Your task to perform on an android device: Go to calendar. Show me events next week Image 0: 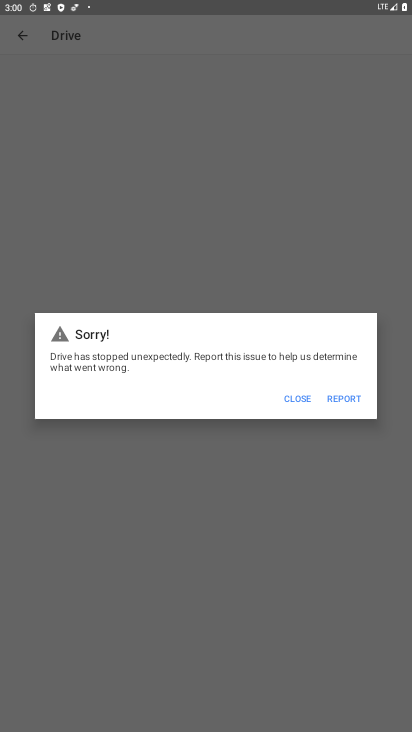
Step 0: press home button
Your task to perform on an android device: Go to calendar. Show me events next week Image 1: 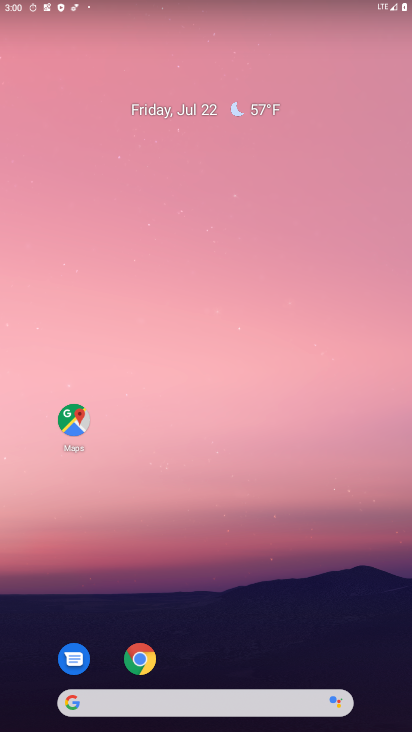
Step 1: drag from (279, 660) to (262, 170)
Your task to perform on an android device: Go to calendar. Show me events next week Image 2: 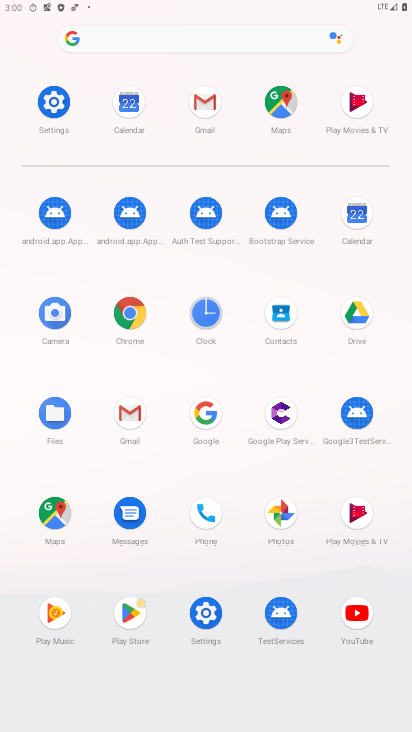
Step 2: click (352, 209)
Your task to perform on an android device: Go to calendar. Show me events next week Image 3: 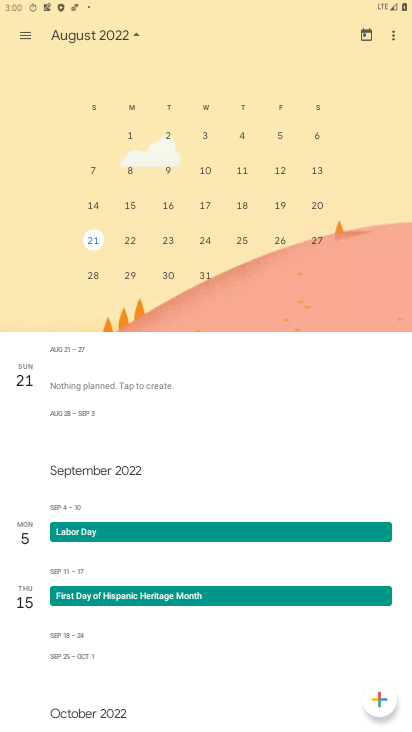
Step 3: drag from (47, 200) to (399, 225)
Your task to perform on an android device: Go to calendar. Show me events next week Image 4: 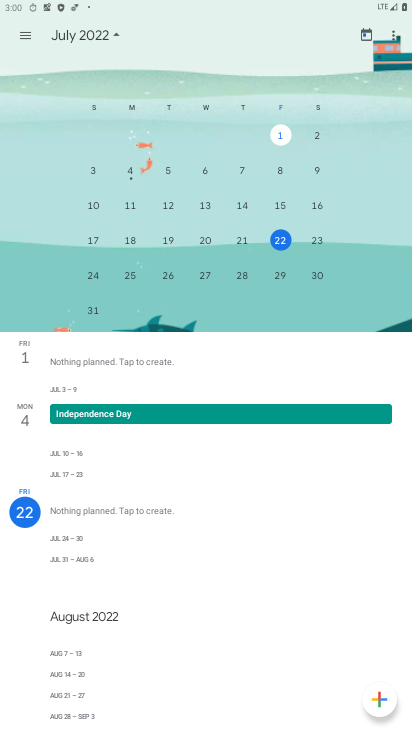
Step 4: click (86, 280)
Your task to perform on an android device: Go to calendar. Show me events next week Image 5: 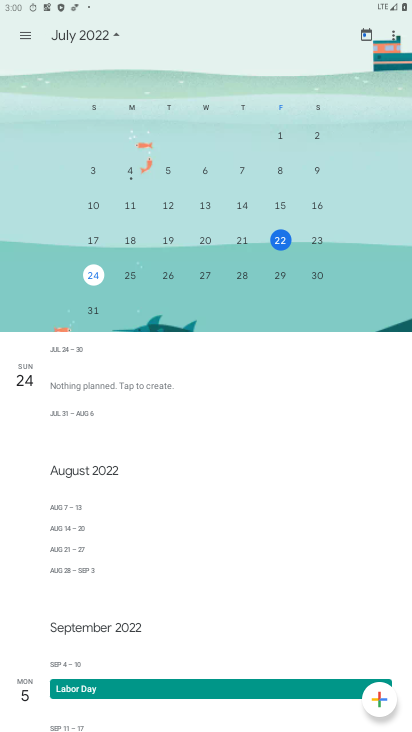
Step 5: click (135, 280)
Your task to perform on an android device: Go to calendar. Show me events next week Image 6: 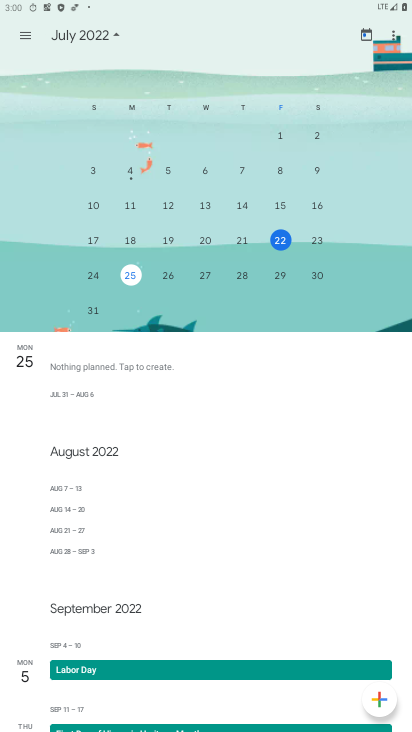
Step 6: click (176, 279)
Your task to perform on an android device: Go to calendar. Show me events next week Image 7: 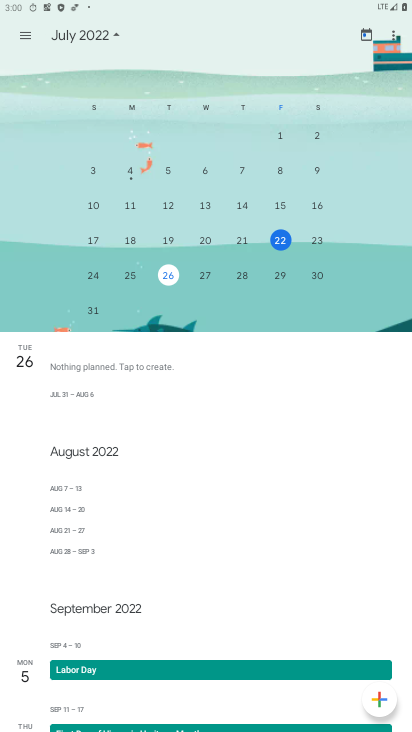
Step 7: click (207, 278)
Your task to perform on an android device: Go to calendar. Show me events next week Image 8: 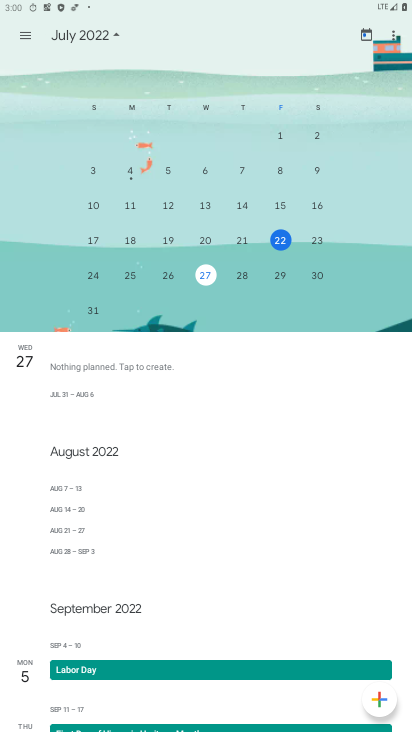
Step 8: click (239, 279)
Your task to perform on an android device: Go to calendar. Show me events next week Image 9: 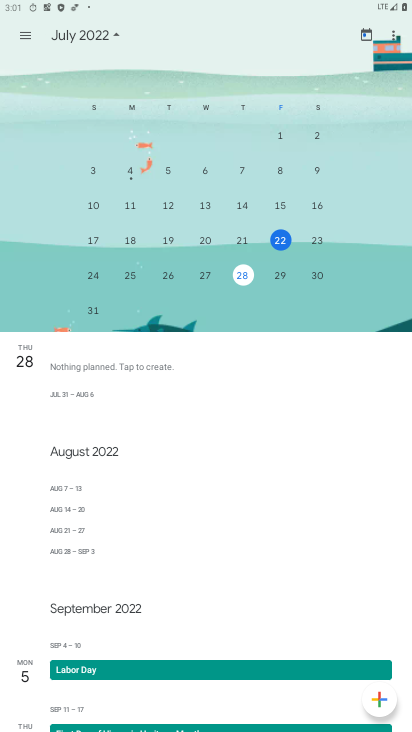
Step 9: click (286, 279)
Your task to perform on an android device: Go to calendar. Show me events next week Image 10: 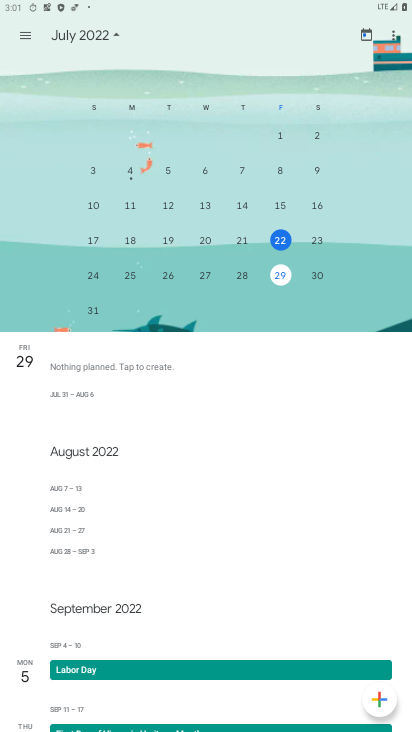
Step 10: click (313, 279)
Your task to perform on an android device: Go to calendar. Show me events next week Image 11: 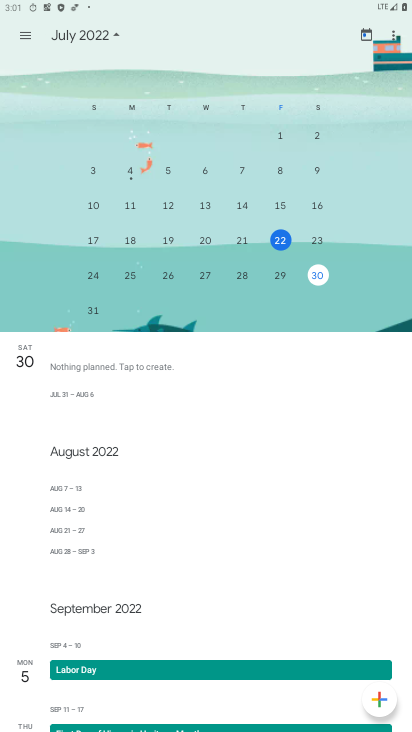
Step 11: task complete